Your task to perform on an android device: turn off smart reply in the gmail app Image 0: 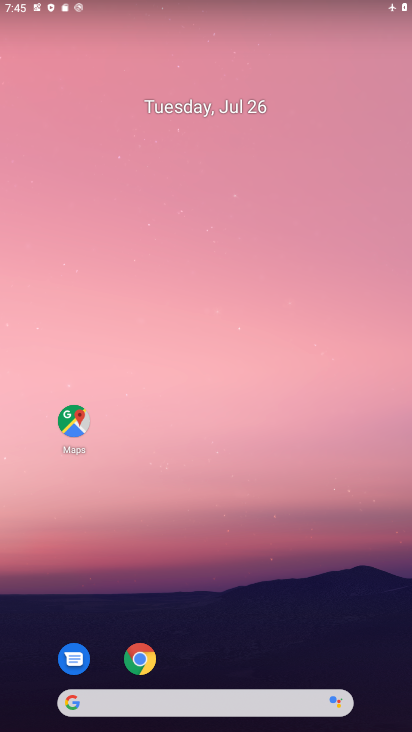
Step 0: drag from (246, 662) to (298, 2)
Your task to perform on an android device: turn off smart reply in the gmail app Image 1: 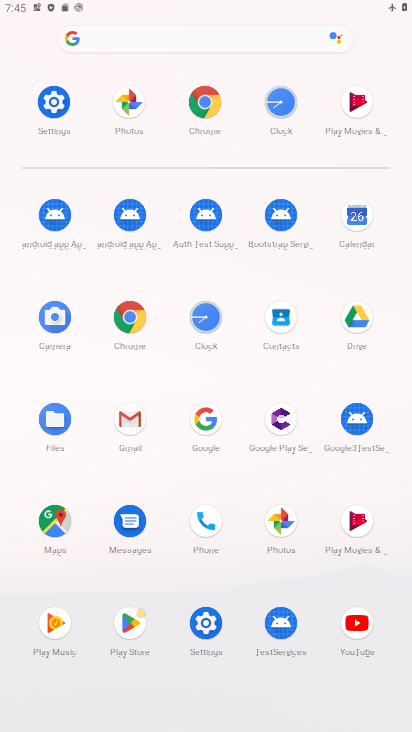
Step 1: click (127, 422)
Your task to perform on an android device: turn off smart reply in the gmail app Image 2: 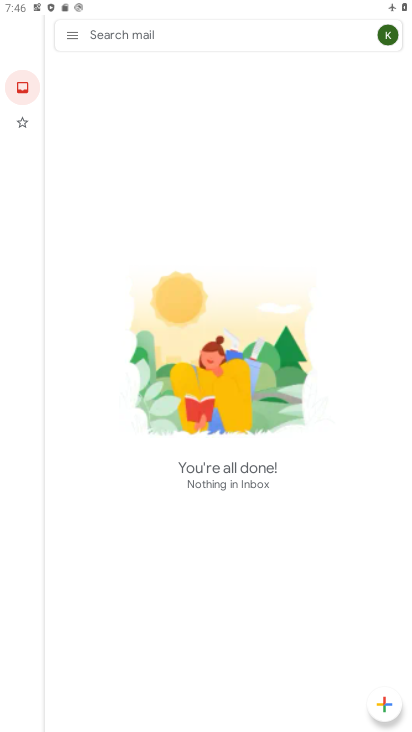
Step 2: click (75, 39)
Your task to perform on an android device: turn off smart reply in the gmail app Image 3: 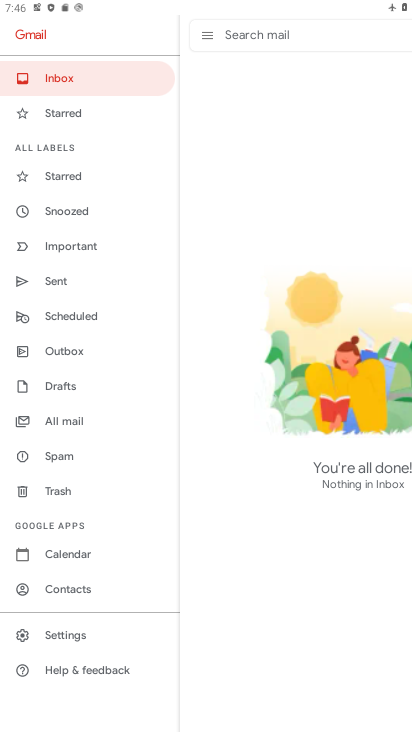
Step 3: click (72, 627)
Your task to perform on an android device: turn off smart reply in the gmail app Image 4: 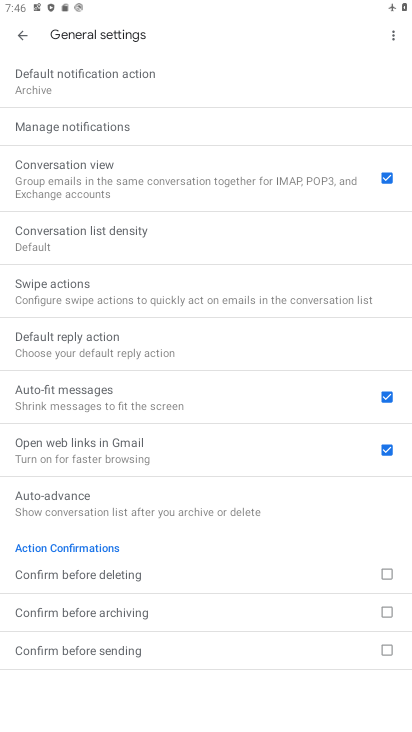
Step 4: click (22, 39)
Your task to perform on an android device: turn off smart reply in the gmail app Image 5: 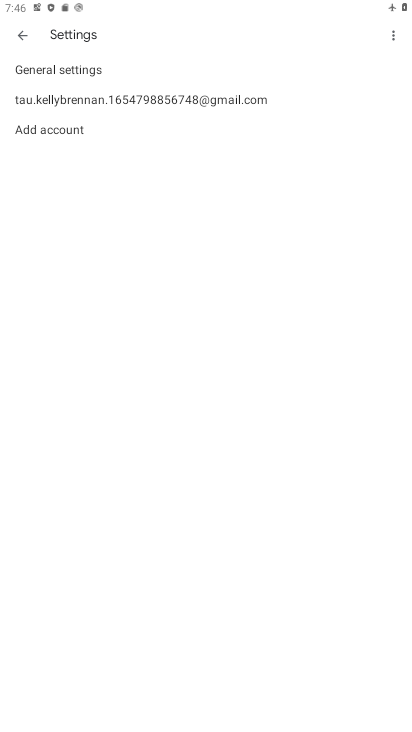
Step 5: click (49, 96)
Your task to perform on an android device: turn off smart reply in the gmail app Image 6: 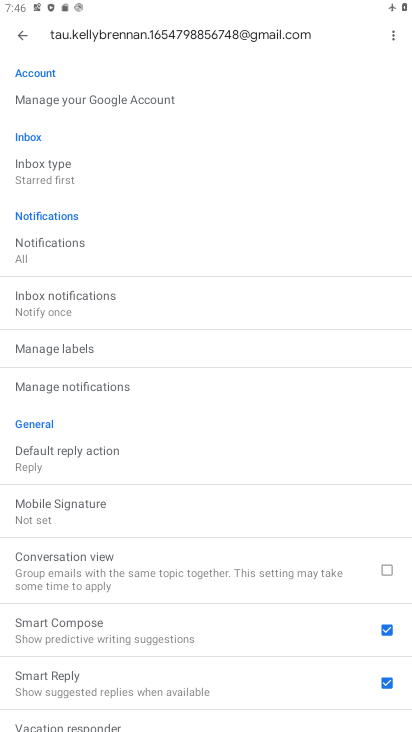
Step 6: click (385, 687)
Your task to perform on an android device: turn off smart reply in the gmail app Image 7: 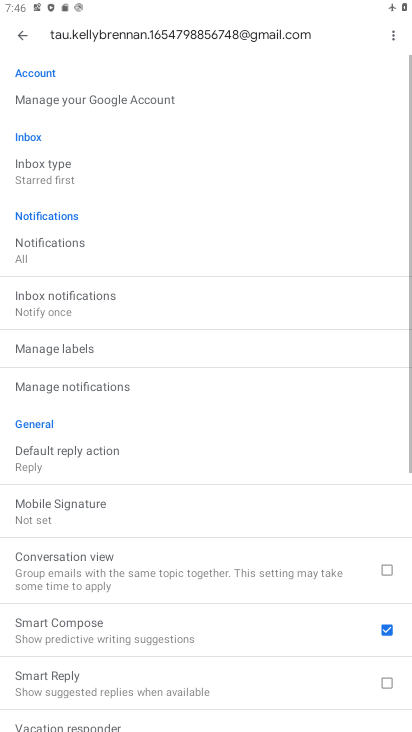
Step 7: task complete